Your task to perform on an android device: Go to Google maps Image 0: 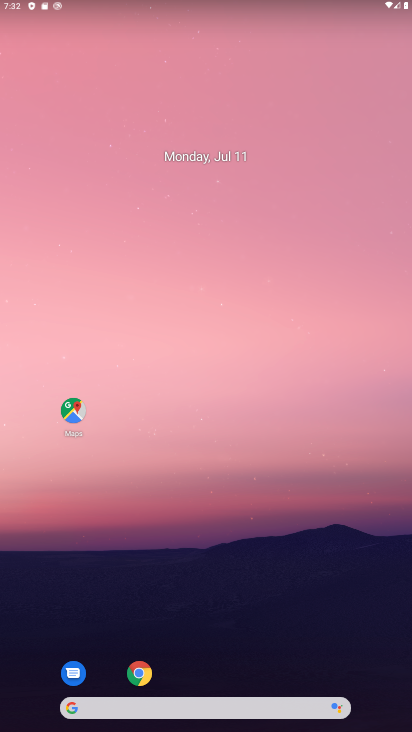
Step 0: click (67, 411)
Your task to perform on an android device: Go to Google maps Image 1: 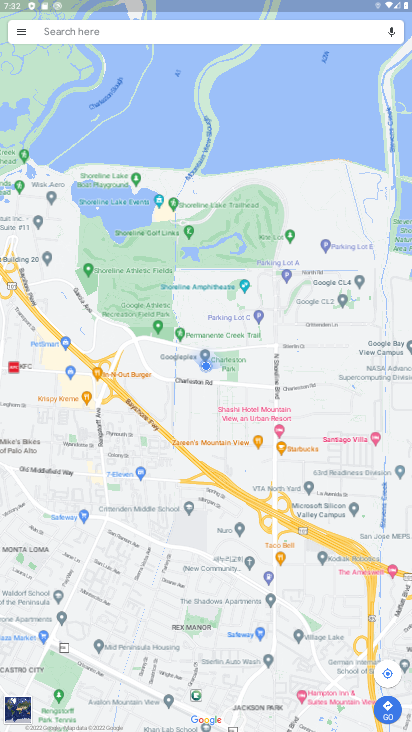
Step 1: task complete